Your task to perform on an android device: Open the stopwatch Image 0: 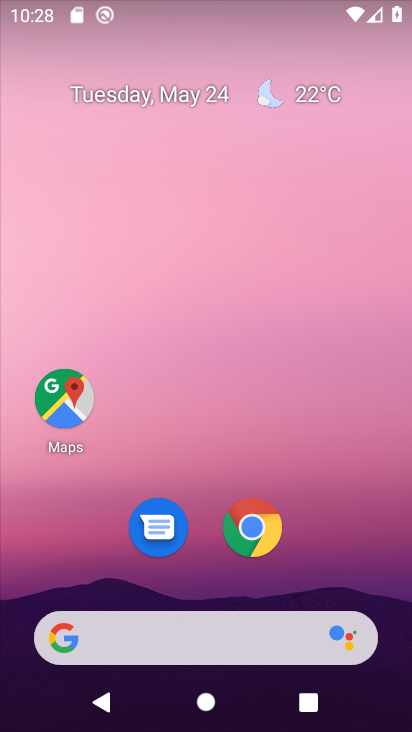
Step 0: click (356, 150)
Your task to perform on an android device: Open the stopwatch Image 1: 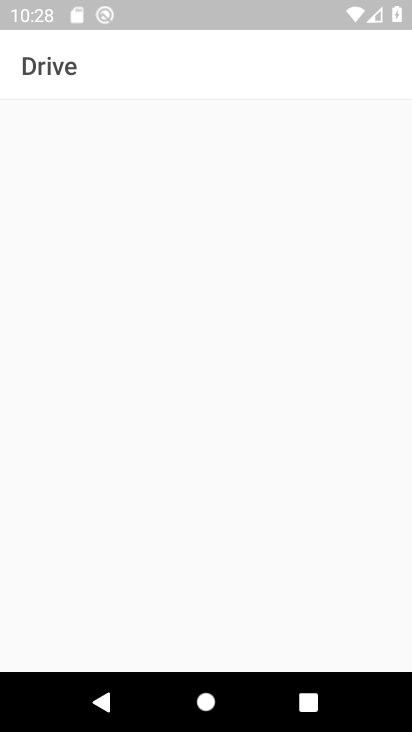
Step 1: press home button
Your task to perform on an android device: Open the stopwatch Image 2: 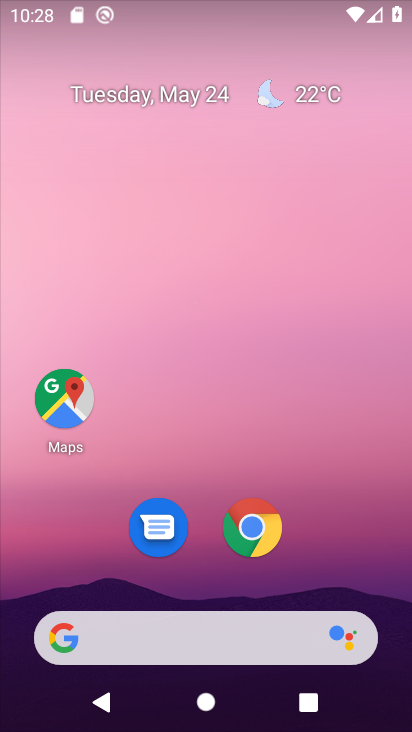
Step 2: drag from (166, 619) to (333, 124)
Your task to perform on an android device: Open the stopwatch Image 3: 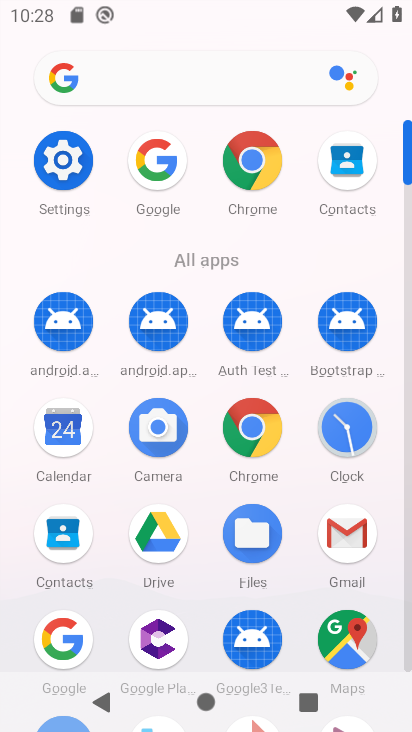
Step 3: click (356, 439)
Your task to perform on an android device: Open the stopwatch Image 4: 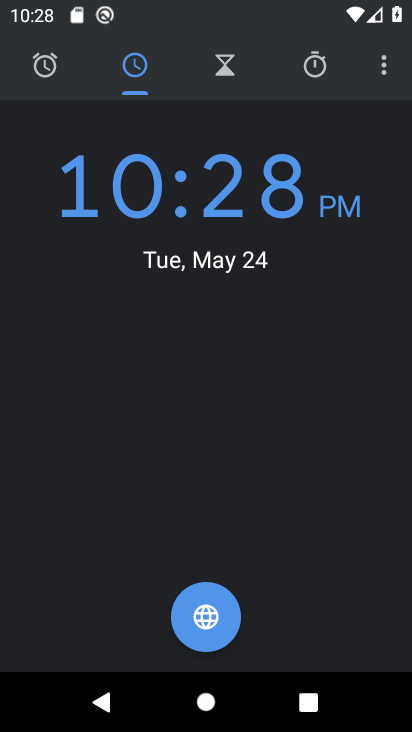
Step 4: click (322, 69)
Your task to perform on an android device: Open the stopwatch Image 5: 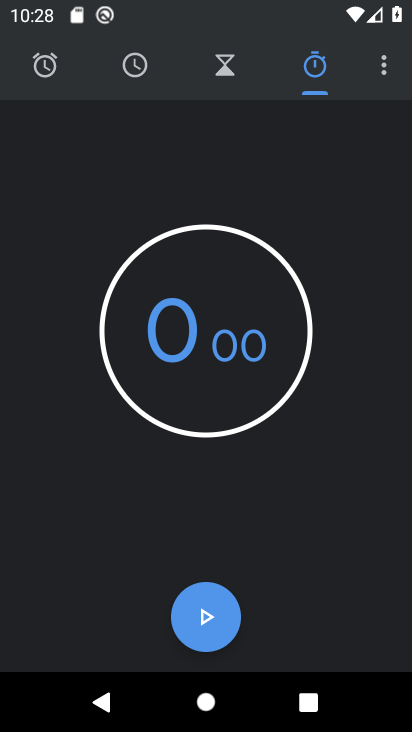
Step 5: task complete